Your task to perform on an android device: stop showing notifications on the lock screen Image 0: 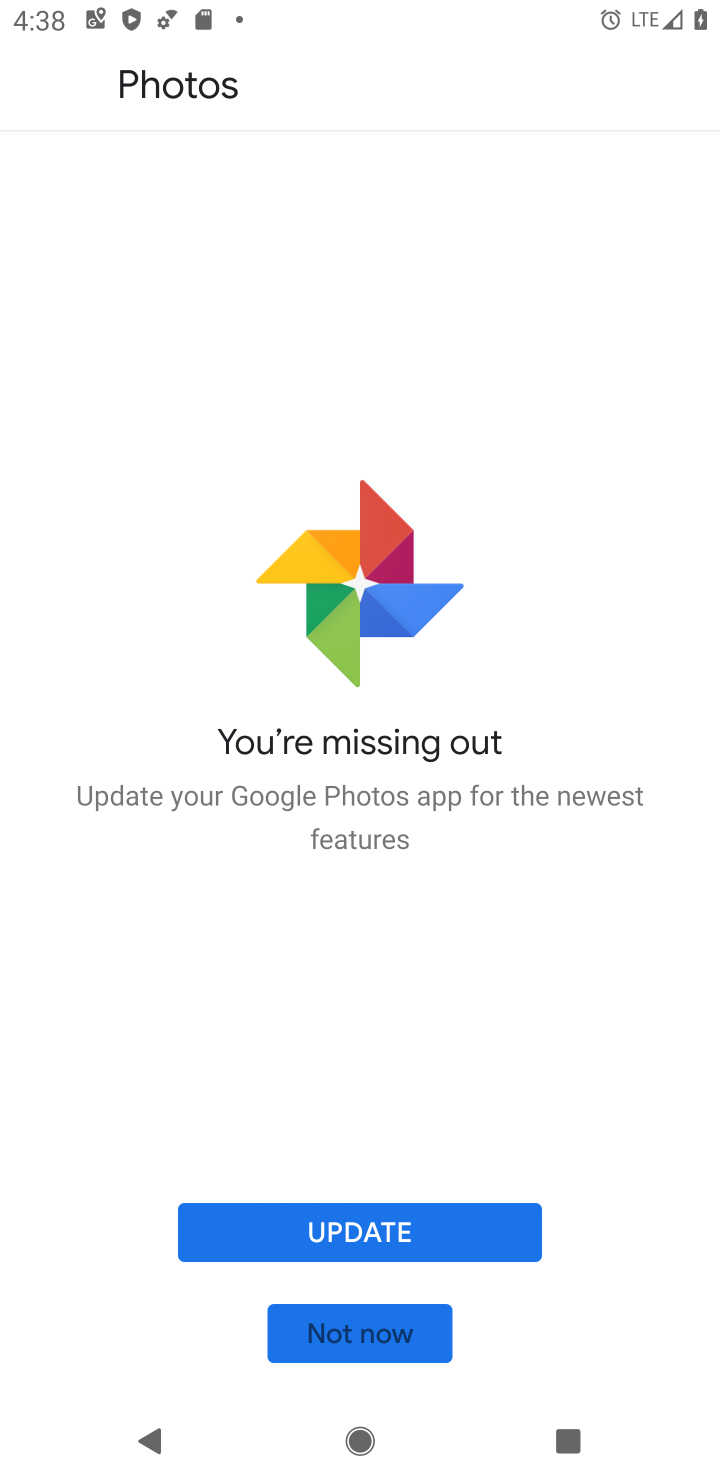
Step 0: press home button
Your task to perform on an android device: stop showing notifications on the lock screen Image 1: 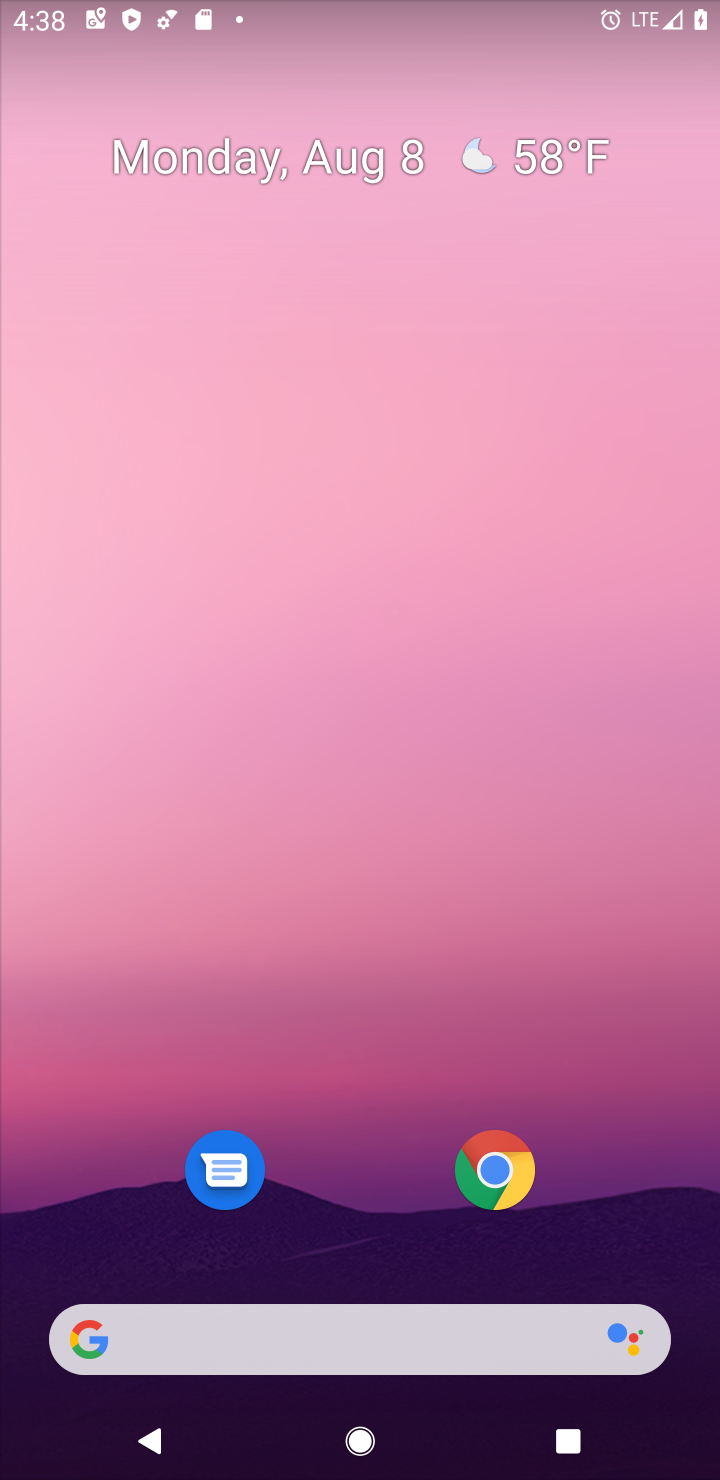
Step 1: drag from (363, 1060) to (294, 286)
Your task to perform on an android device: stop showing notifications on the lock screen Image 2: 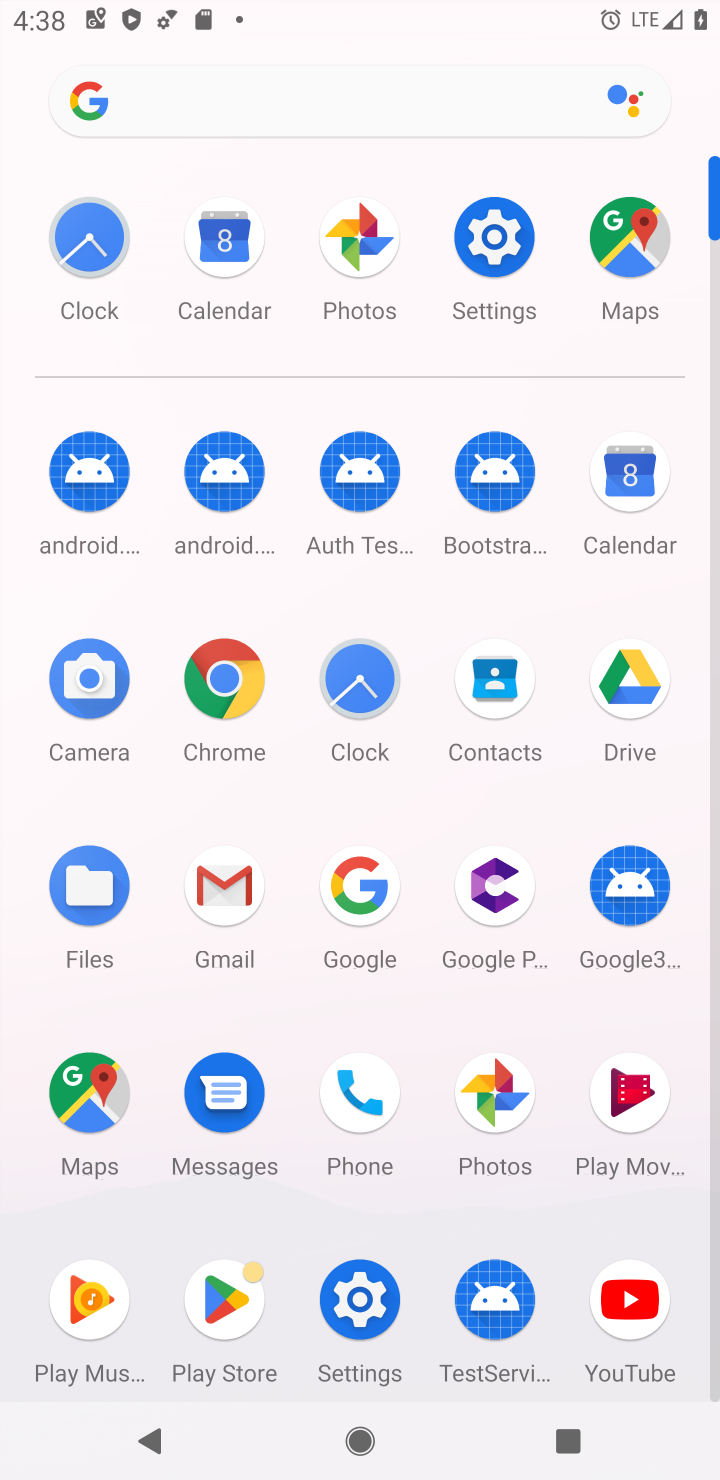
Step 2: click (485, 284)
Your task to perform on an android device: stop showing notifications on the lock screen Image 3: 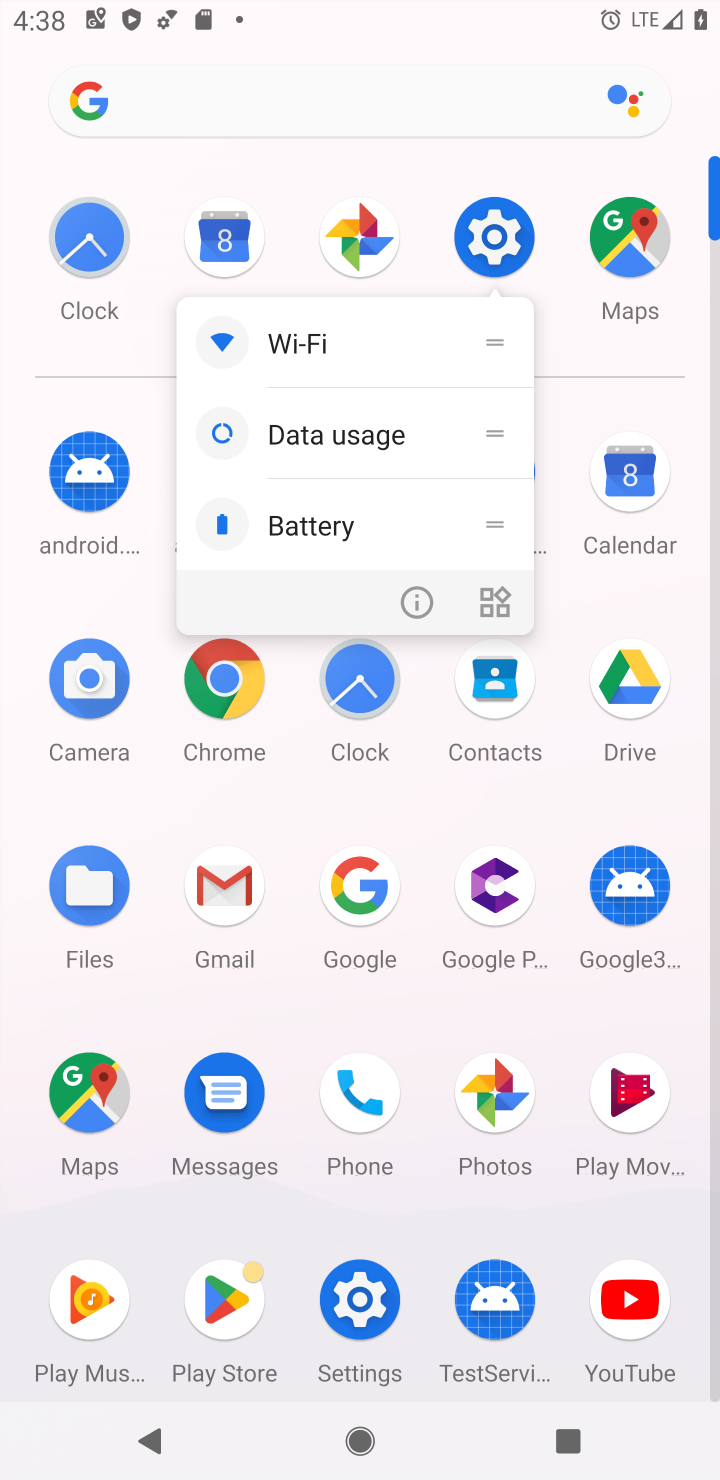
Step 3: click (487, 243)
Your task to perform on an android device: stop showing notifications on the lock screen Image 4: 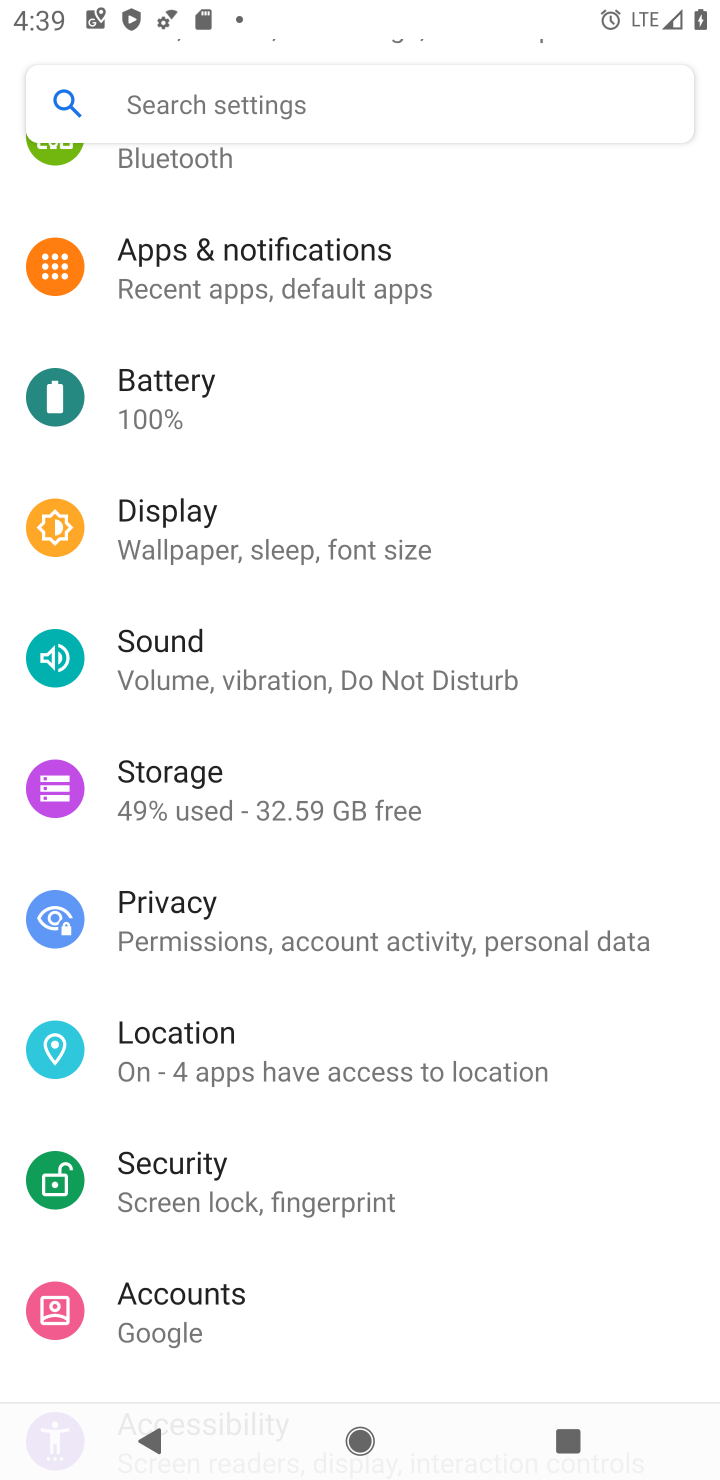
Step 4: click (352, 286)
Your task to perform on an android device: stop showing notifications on the lock screen Image 5: 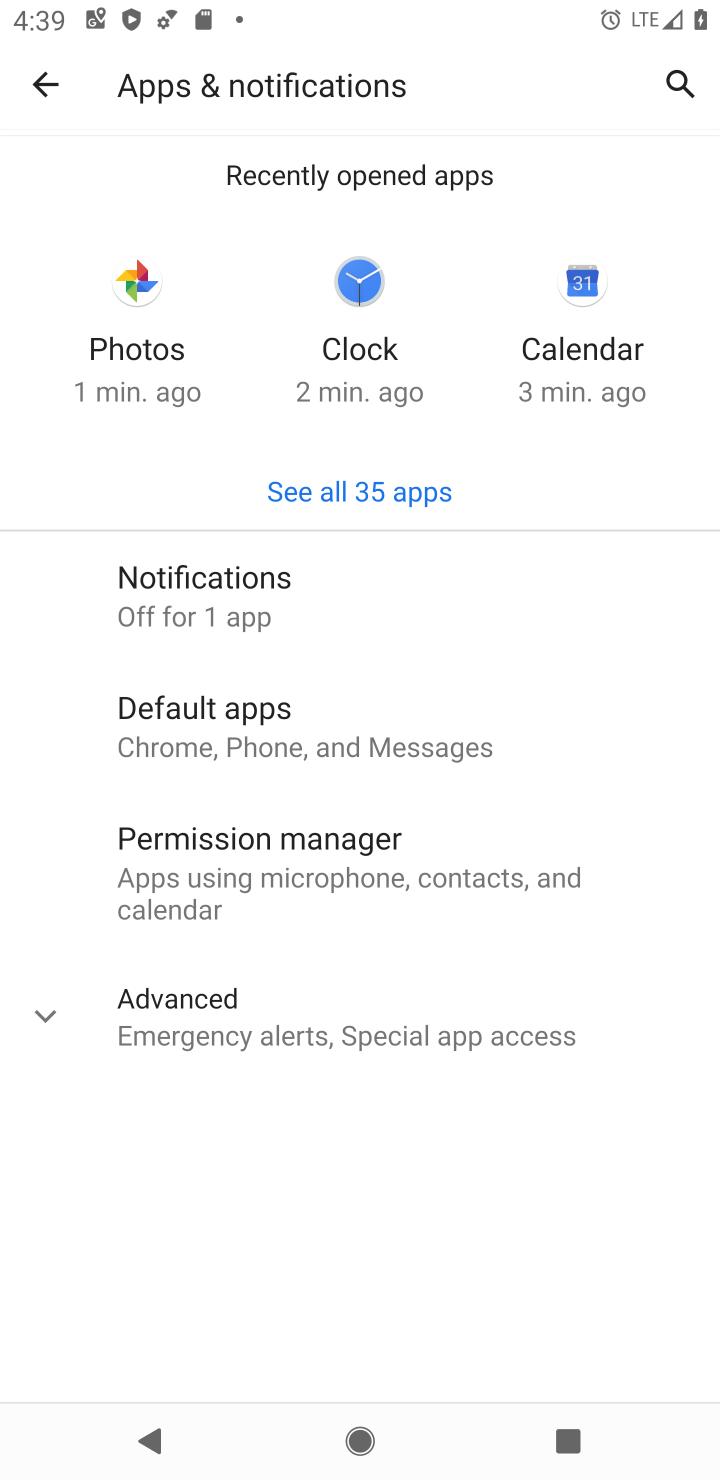
Step 5: click (288, 642)
Your task to perform on an android device: stop showing notifications on the lock screen Image 6: 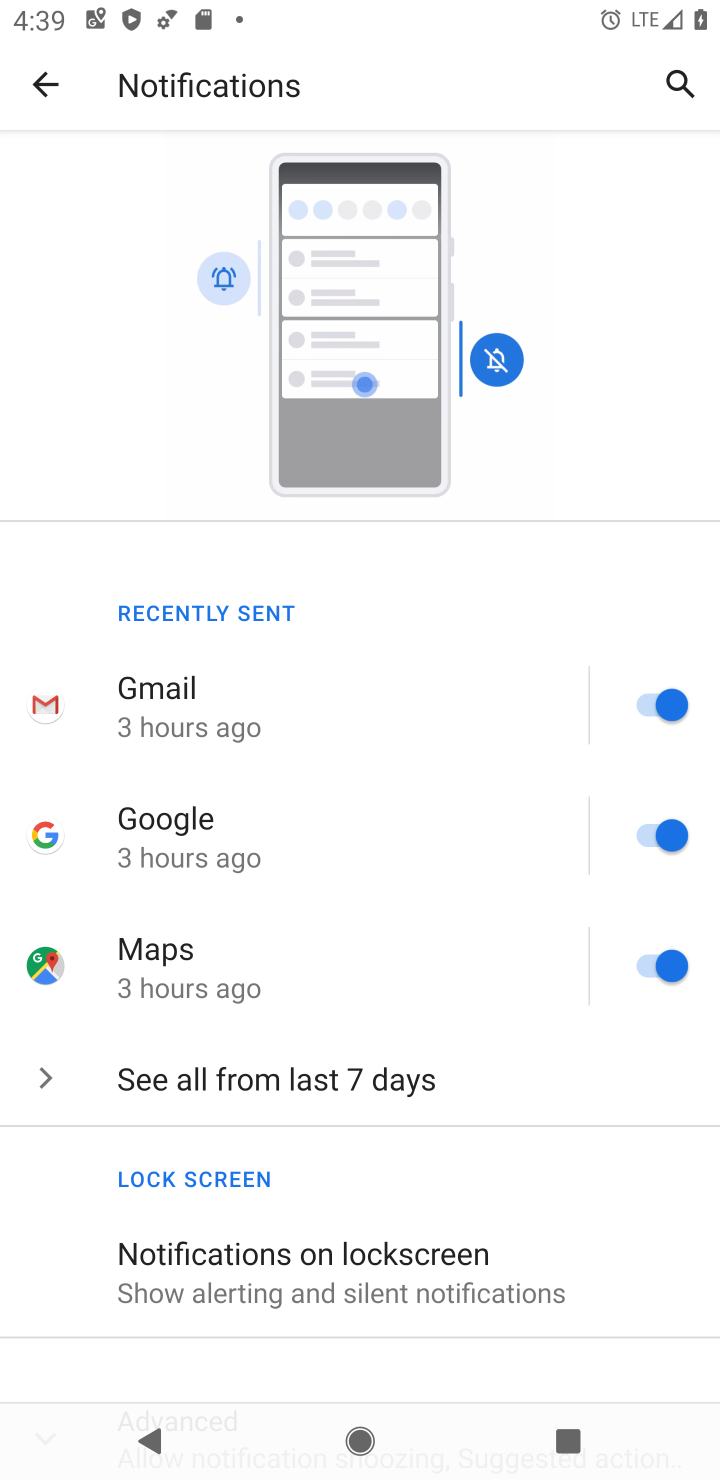
Step 6: click (348, 1257)
Your task to perform on an android device: stop showing notifications on the lock screen Image 7: 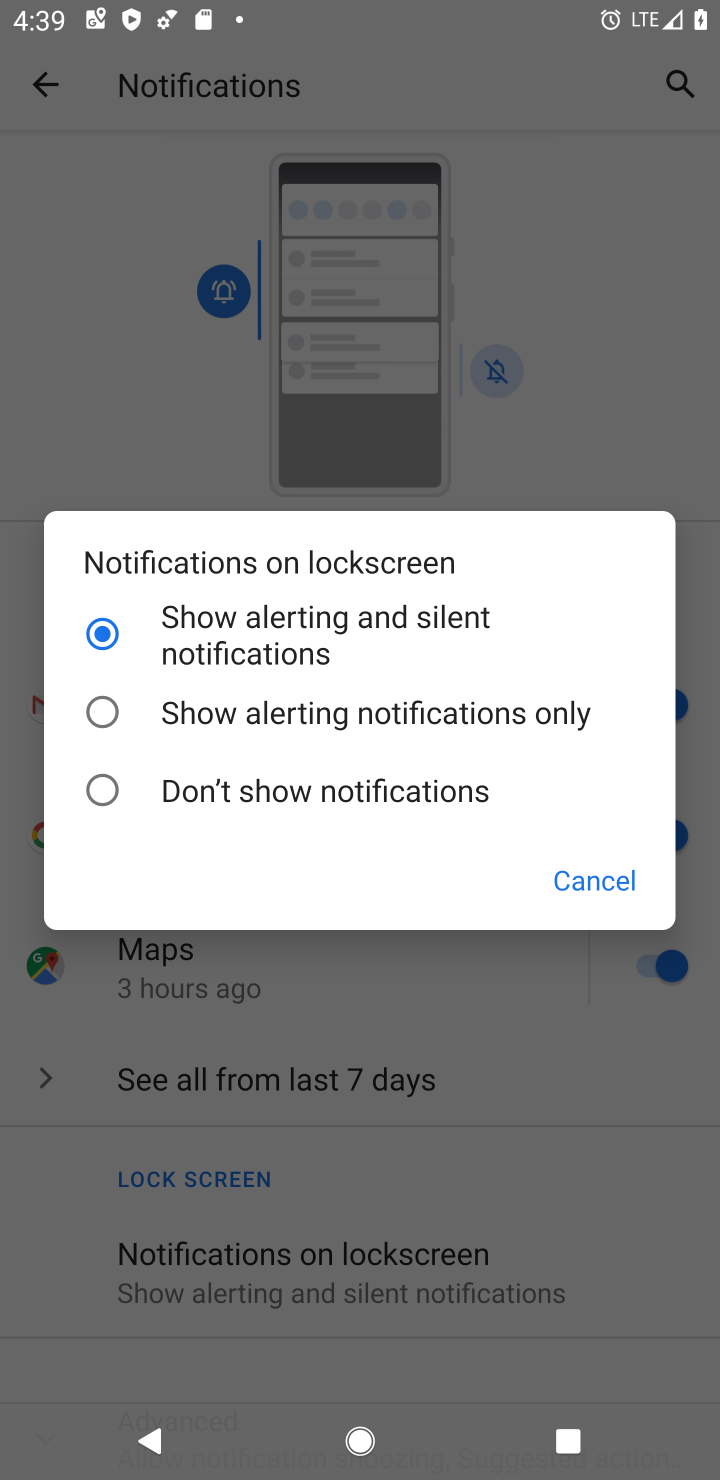
Step 7: click (239, 781)
Your task to perform on an android device: stop showing notifications on the lock screen Image 8: 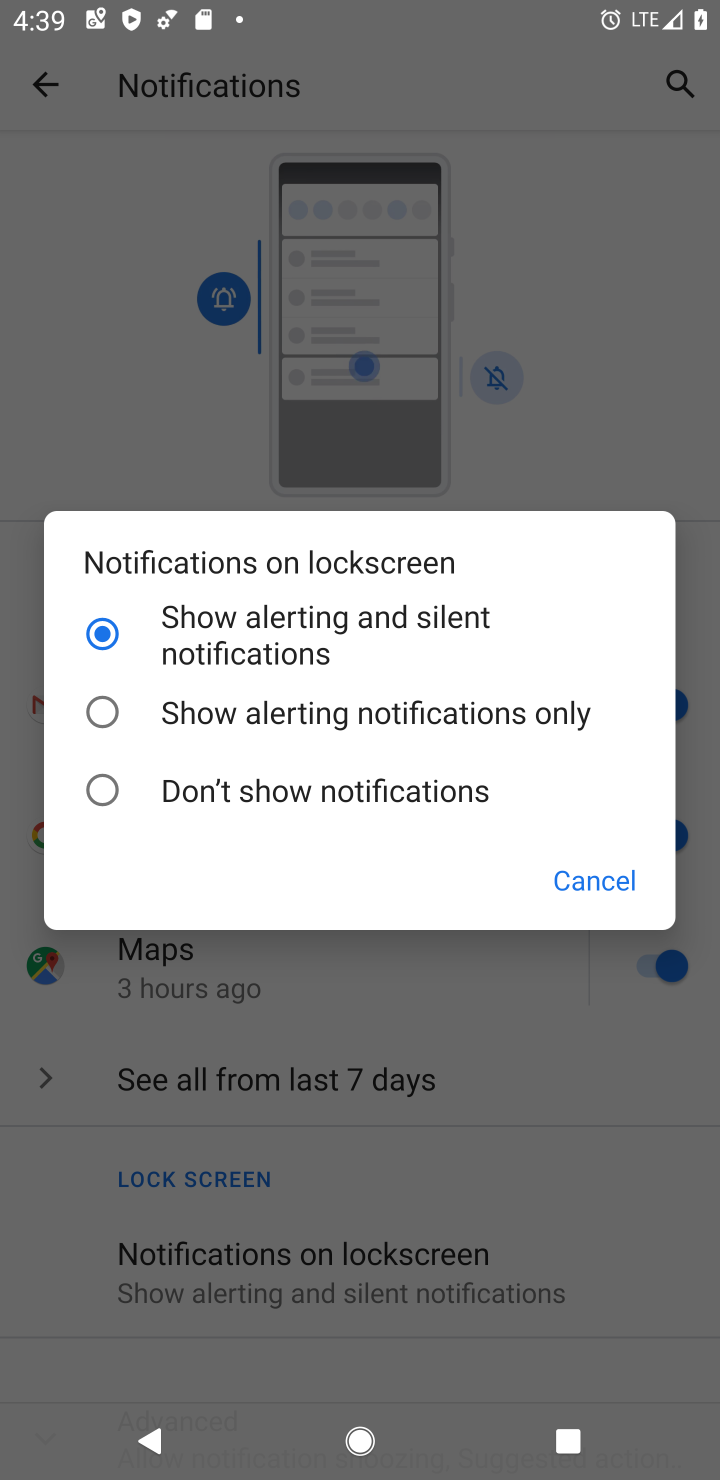
Step 8: task complete